Your task to perform on an android device: Open a new incognito tab in the chrome app Image 0: 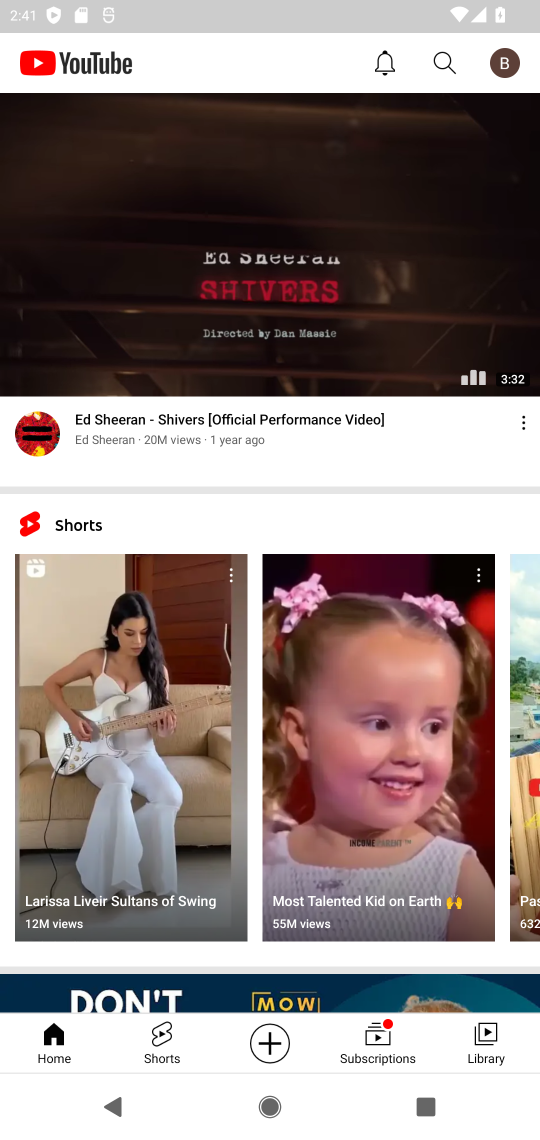
Step 0: press home button
Your task to perform on an android device: Open a new incognito tab in the chrome app Image 1: 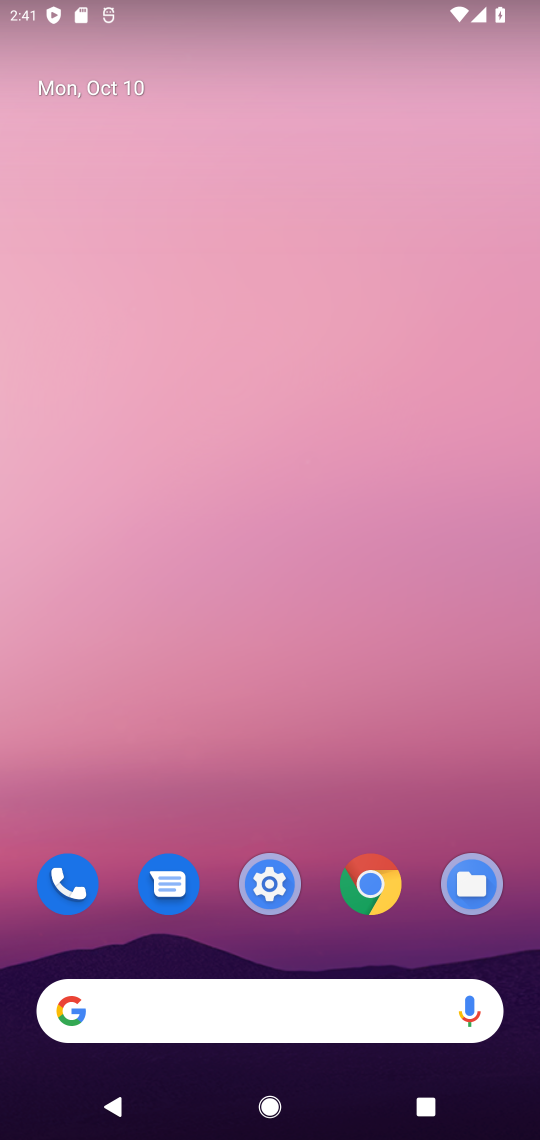
Step 1: click (372, 880)
Your task to perform on an android device: Open a new incognito tab in the chrome app Image 2: 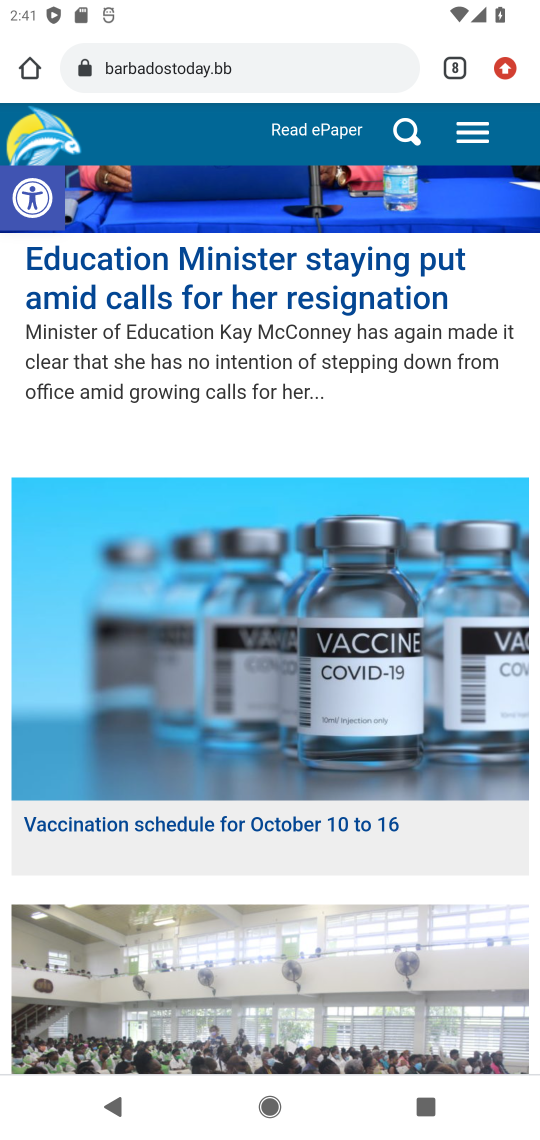
Step 2: click (505, 71)
Your task to perform on an android device: Open a new incognito tab in the chrome app Image 3: 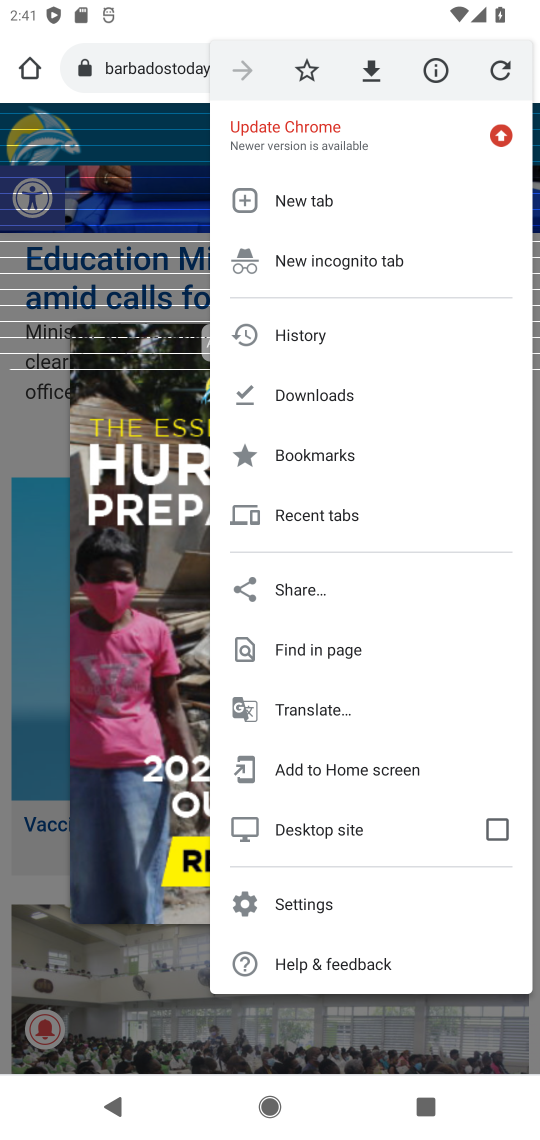
Step 3: click (320, 263)
Your task to perform on an android device: Open a new incognito tab in the chrome app Image 4: 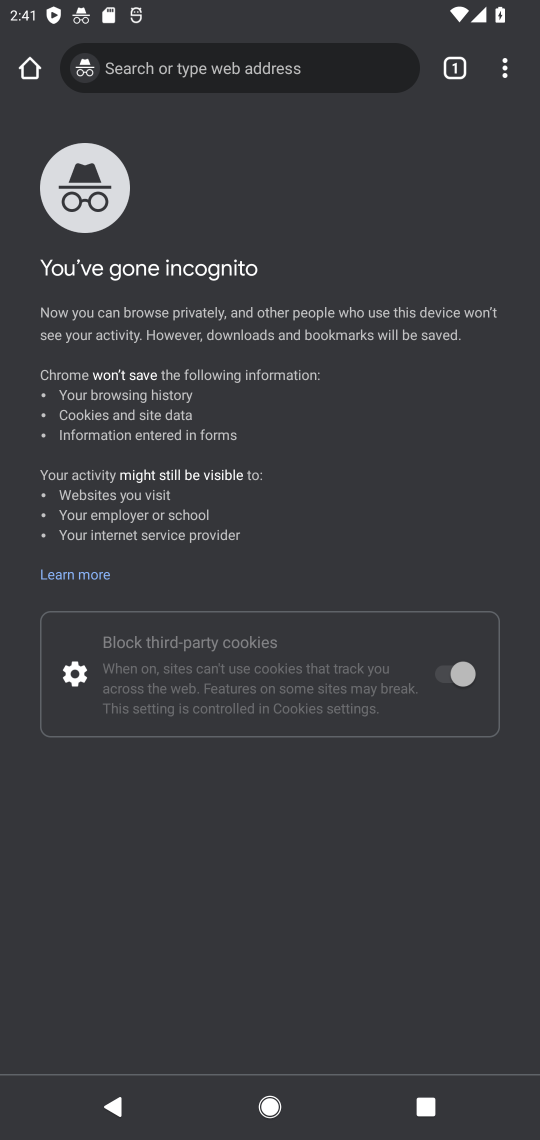
Step 4: task complete